Your task to perform on an android device: toggle data saver in the chrome app Image 0: 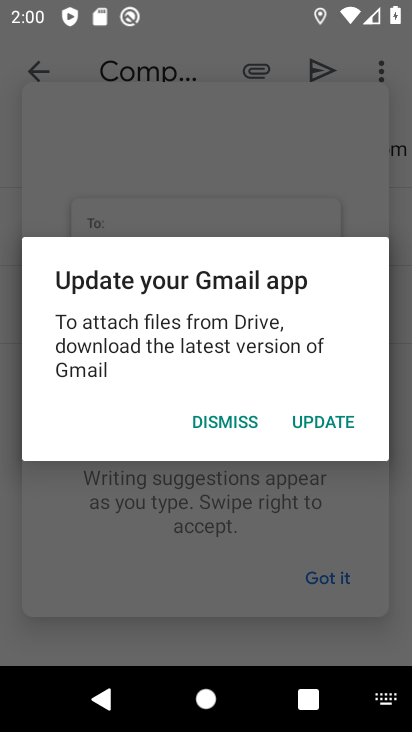
Step 0: press back button
Your task to perform on an android device: toggle data saver in the chrome app Image 1: 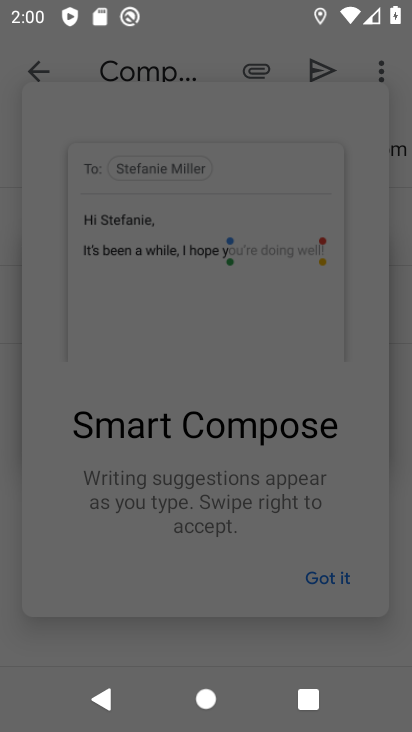
Step 1: press home button
Your task to perform on an android device: toggle data saver in the chrome app Image 2: 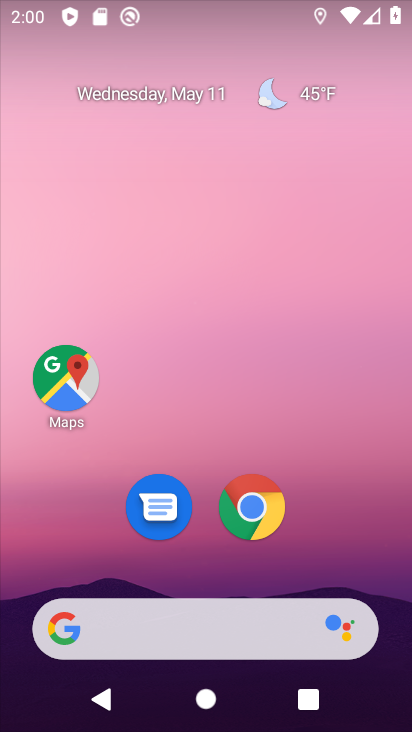
Step 2: drag from (314, 484) to (270, 24)
Your task to perform on an android device: toggle data saver in the chrome app Image 3: 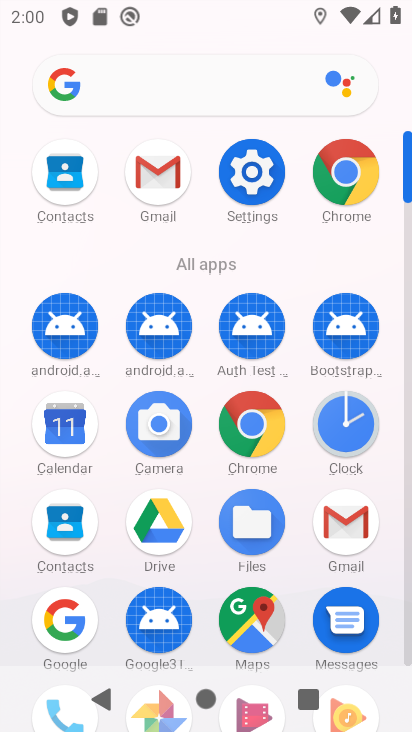
Step 3: click (336, 169)
Your task to perform on an android device: toggle data saver in the chrome app Image 4: 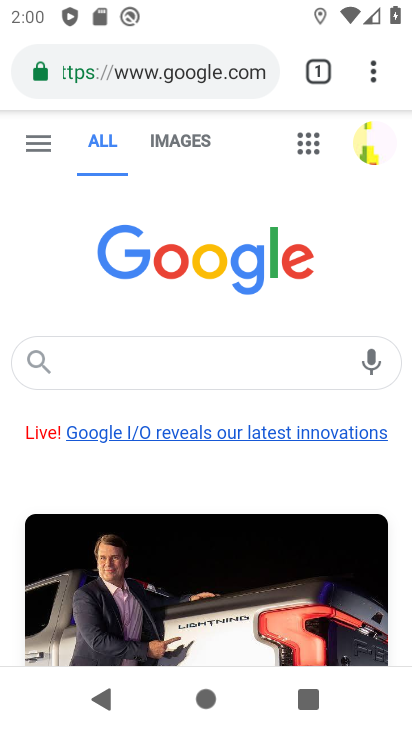
Step 4: drag from (371, 70) to (175, 497)
Your task to perform on an android device: toggle data saver in the chrome app Image 5: 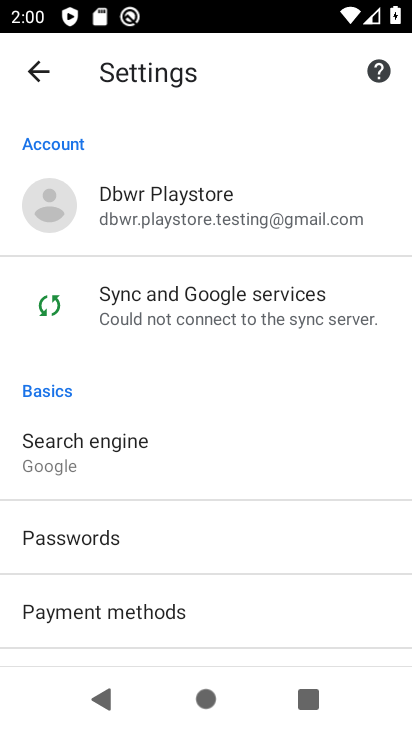
Step 5: drag from (234, 505) to (229, 142)
Your task to perform on an android device: toggle data saver in the chrome app Image 6: 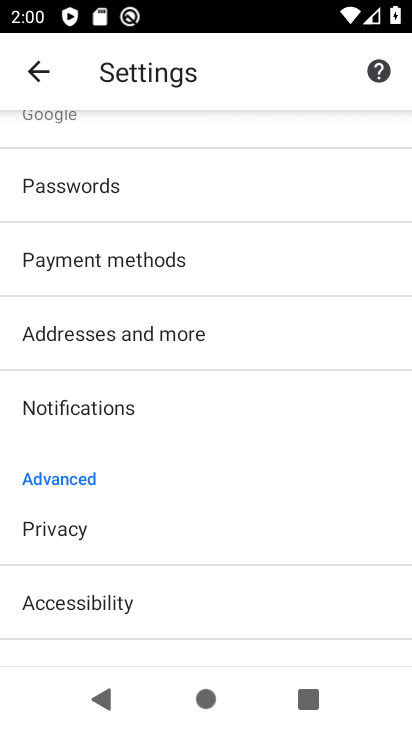
Step 6: drag from (191, 559) to (189, 224)
Your task to perform on an android device: toggle data saver in the chrome app Image 7: 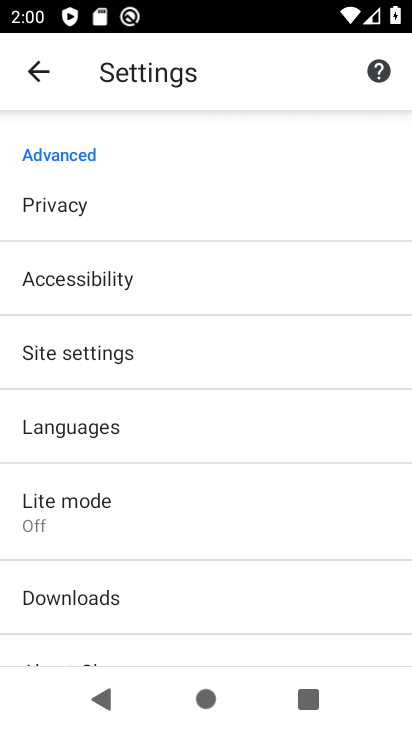
Step 7: click (140, 517)
Your task to perform on an android device: toggle data saver in the chrome app Image 8: 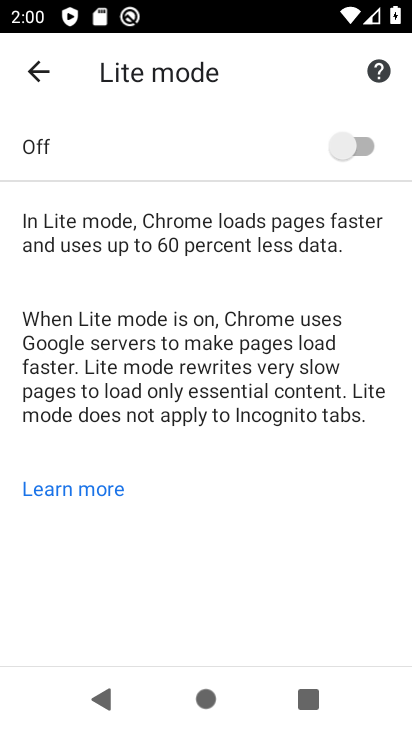
Step 8: click (374, 142)
Your task to perform on an android device: toggle data saver in the chrome app Image 9: 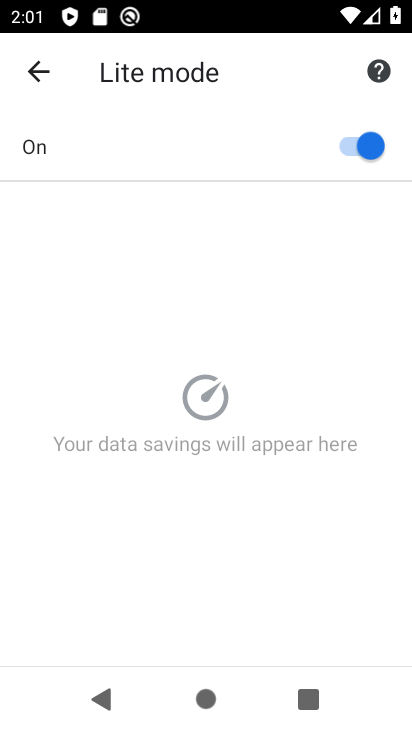
Step 9: task complete